Your task to perform on an android device: Go to battery settings Image 0: 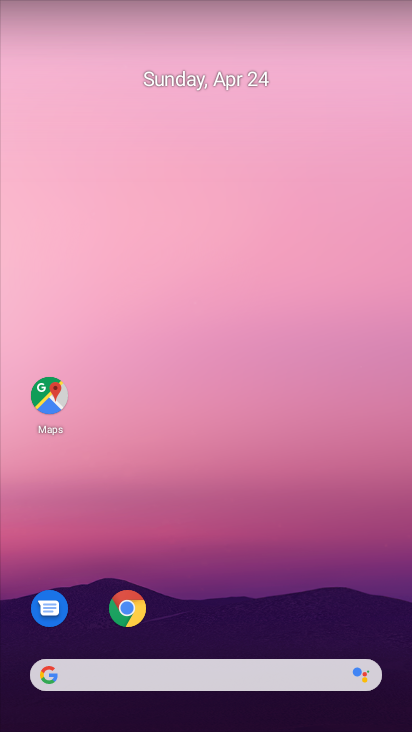
Step 0: drag from (295, 630) to (304, 102)
Your task to perform on an android device: Go to battery settings Image 1: 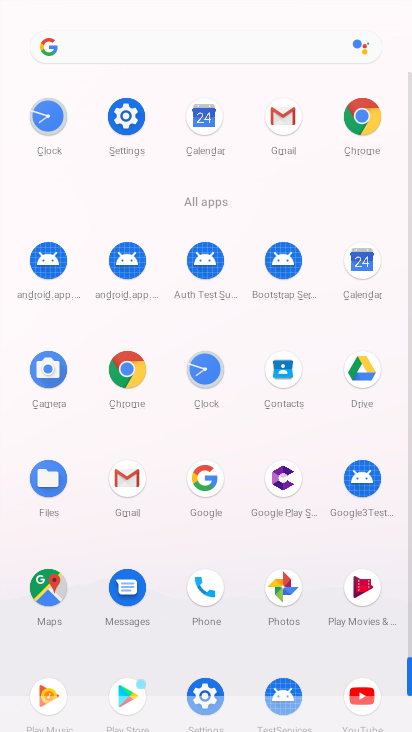
Step 1: click (132, 115)
Your task to perform on an android device: Go to battery settings Image 2: 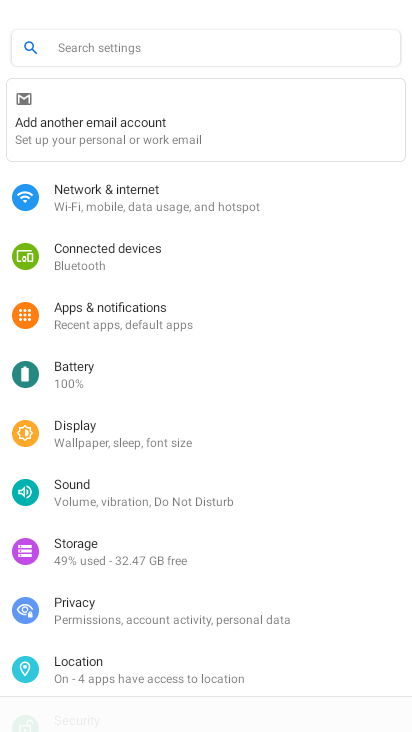
Step 2: click (119, 361)
Your task to perform on an android device: Go to battery settings Image 3: 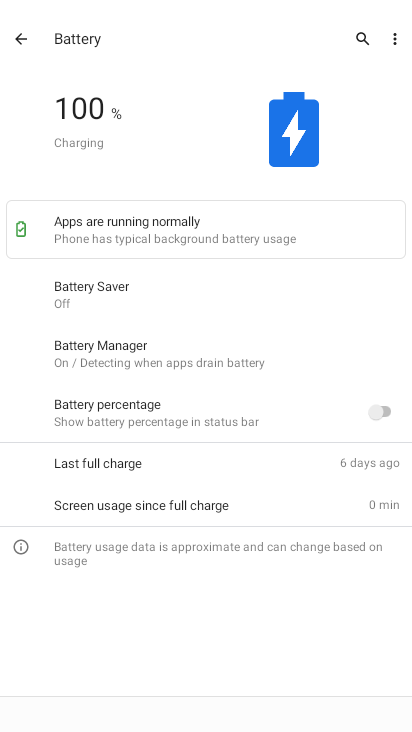
Step 3: task complete